Your task to perform on an android device: move a message to another label in the gmail app Image 0: 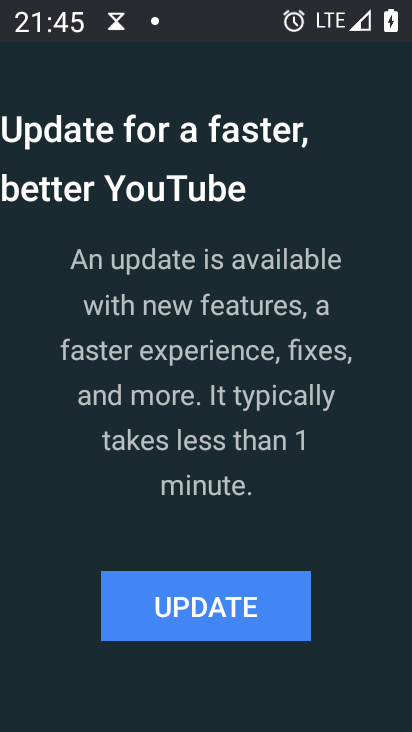
Step 0: press home button
Your task to perform on an android device: move a message to another label in the gmail app Image 1: 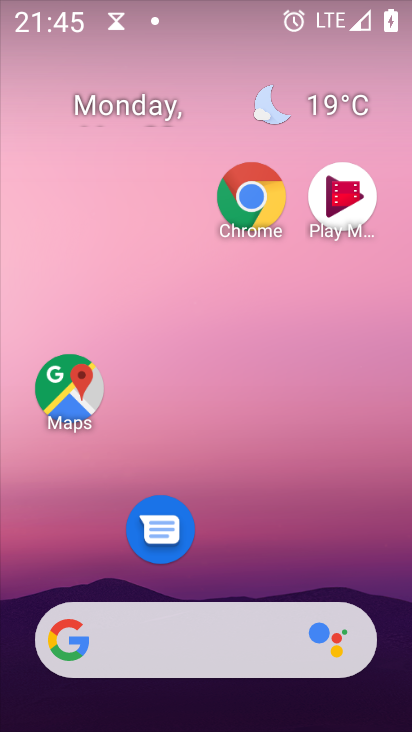
Step 1: drag from (250, 449) to (234, 60)
Your task to perform on an android device: move a message to another label in the gmail app Image 2: 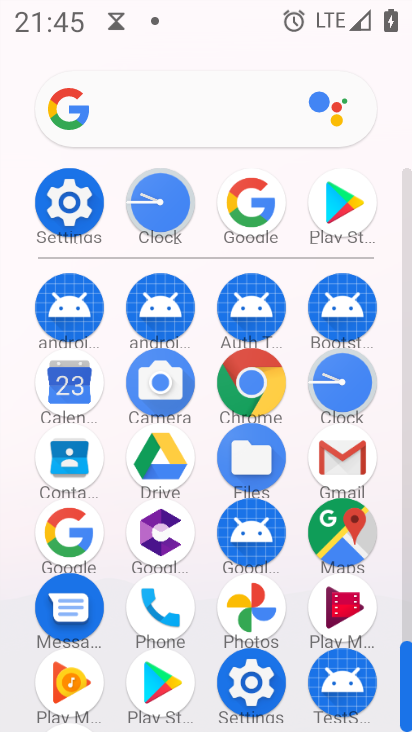
Step 2: click (350, 451)
Your task to perform on an android device: move a message to another label in the gmail app Image 3: 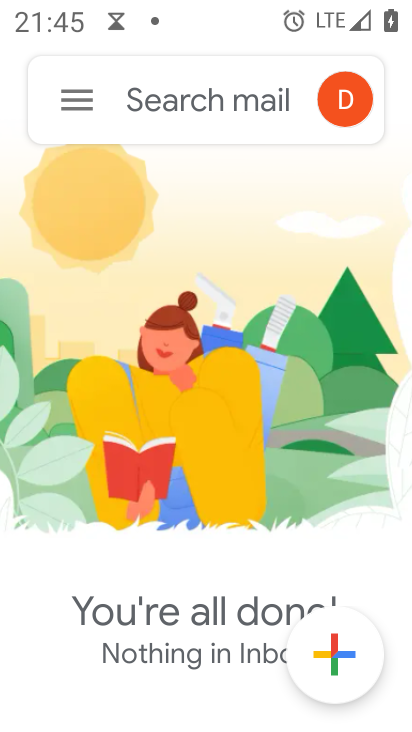
Step 3: click (85, 95)
Your task to perform on an android device: move a message to another label in the gmail app Image 4: 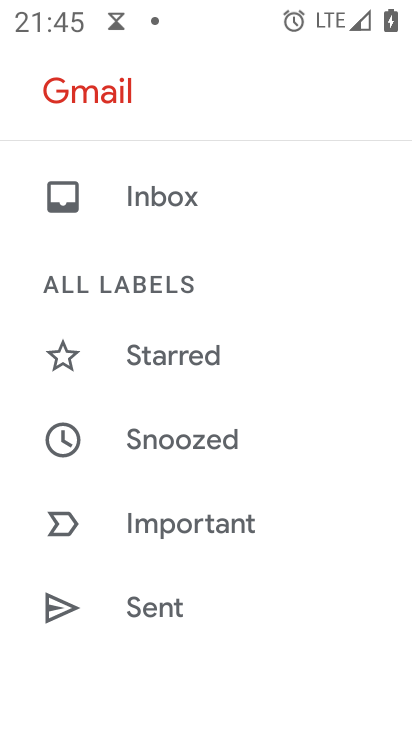
Step 4: drag from (190, 559) to (155, 266)
Your task to perform on an android device: move a message to another label in the gmail app Image 5: 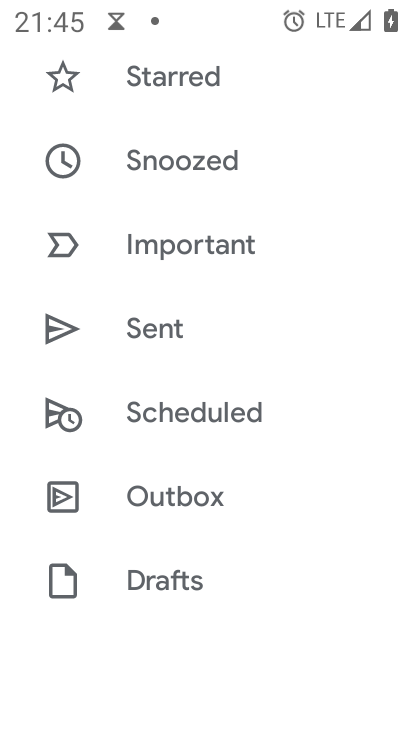
Step 5: drag from (162, 593) to (165, 301)
Your task to perform on an android device: move a message to another label in the gmail app Image 6: 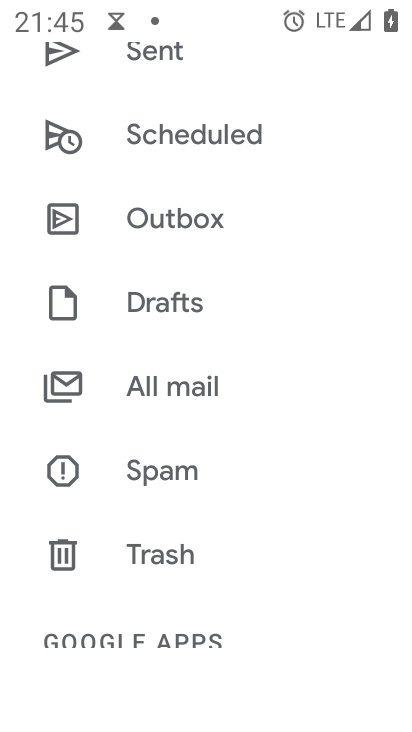
Step 6: click (173, 388)
Your task to perform on an android device: move a message to another label in the gmail app Image 7: 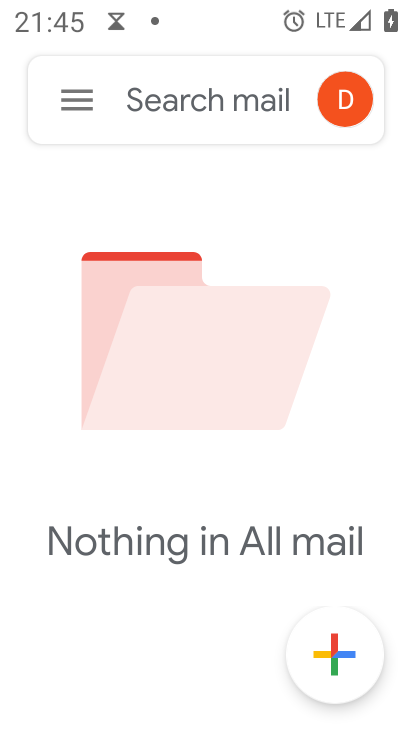
Step 7: task complete